Your task to perform on an android device: toggle airplane mode Image 0: 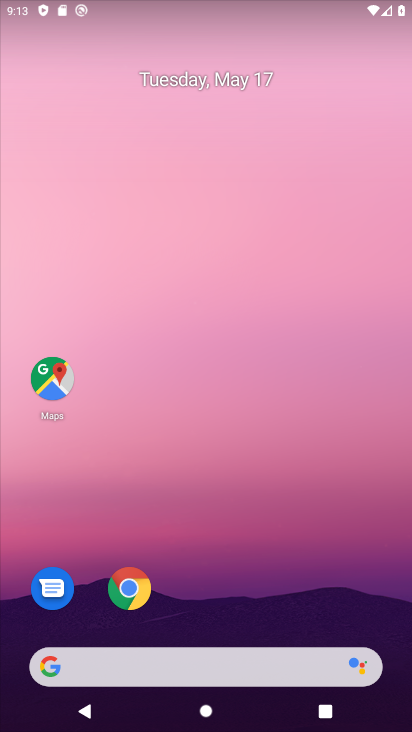
Step 0: drag from (222, 720) to (245, 72)
Your task to perform on an android device: toggle airplane mode Image 1: 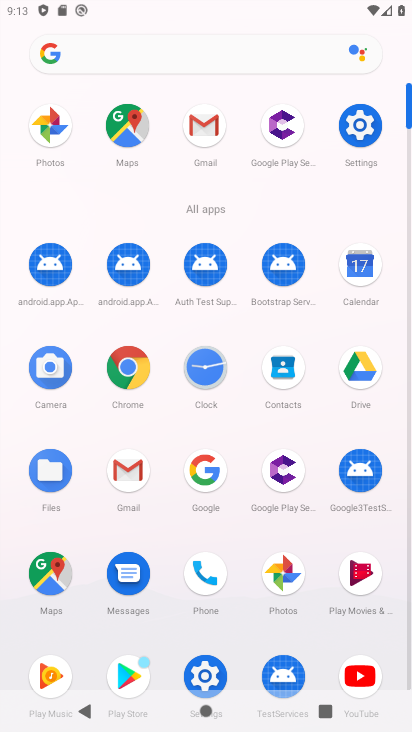
Step 1: click (360, 120)
Your task to perform on an android device: toggle airplane mode Image 2: 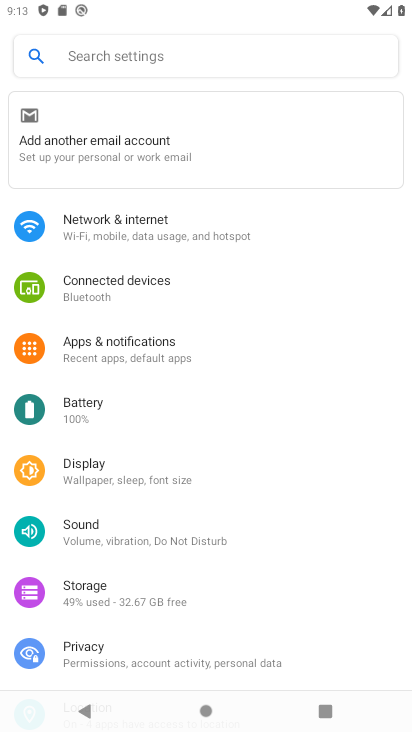
Step 2: click (97, 222)
Your task to perform on an android device: toggle airplane mode Image 3: 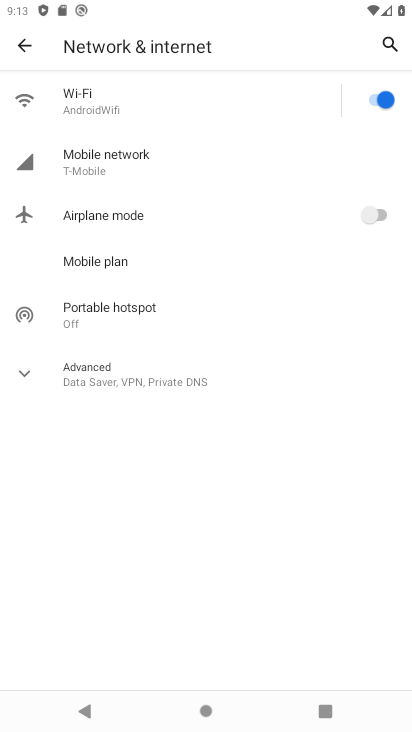
Step 3: click (381, 212)
Your task to perform on an android device: toggle airplane mode Image 4: 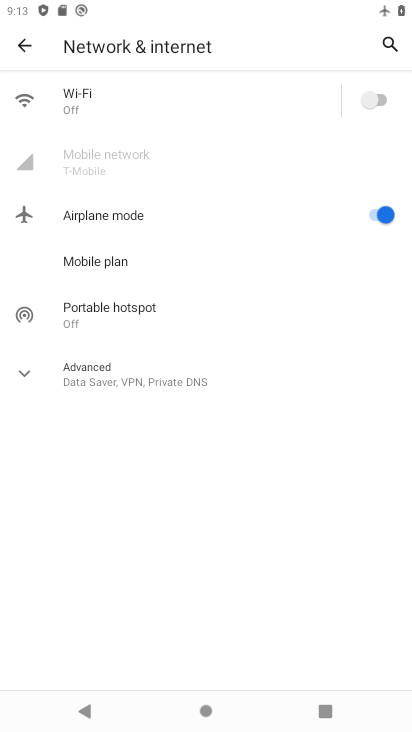
Step 4: task complete